Your task to perform on an android device: When is my next meeting? Image 0: 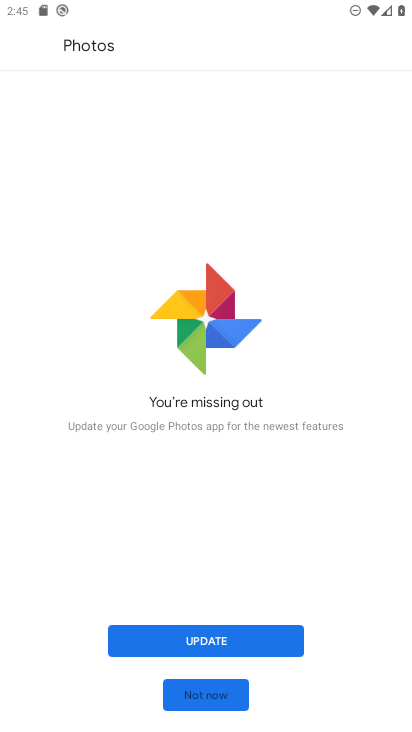
Step 0: press home button
Your task to perform on an android device: When is my next meeting? Image 1: 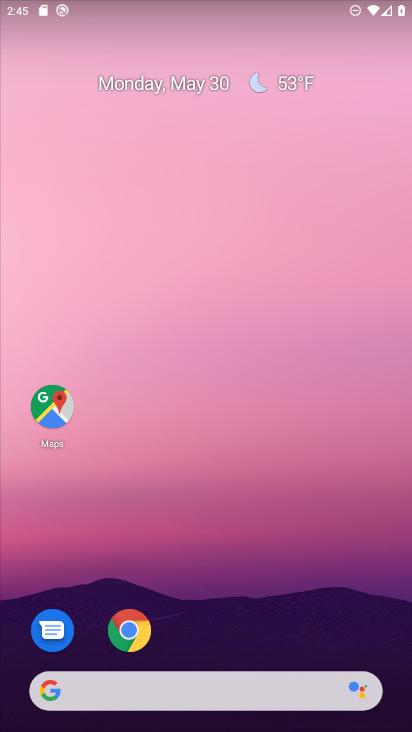
Step 1: drag from (202, 686) to (254, 115)
Your task to perform on an android device: When is my next meeting? Image 2: 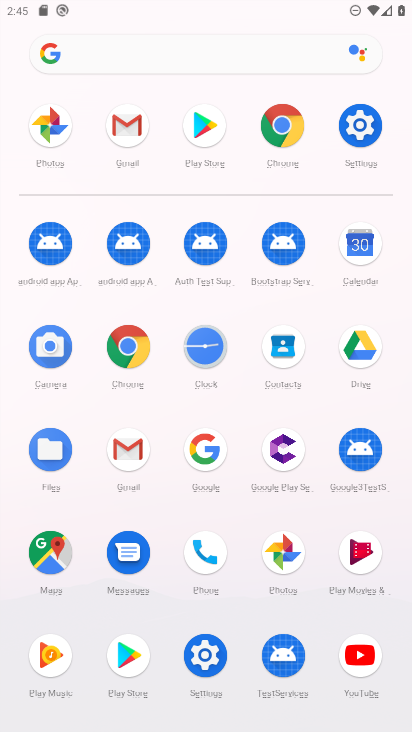
Step 2: click (347, 255)
Your task to perform on an android device: When is my next meeting? Image 3: 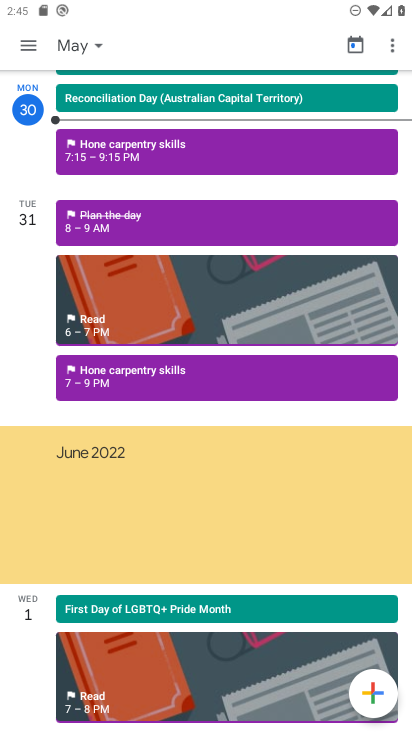
Step 3: task complete